Your task to perform on an android device: see sites visited before in the chrome app Image 0: 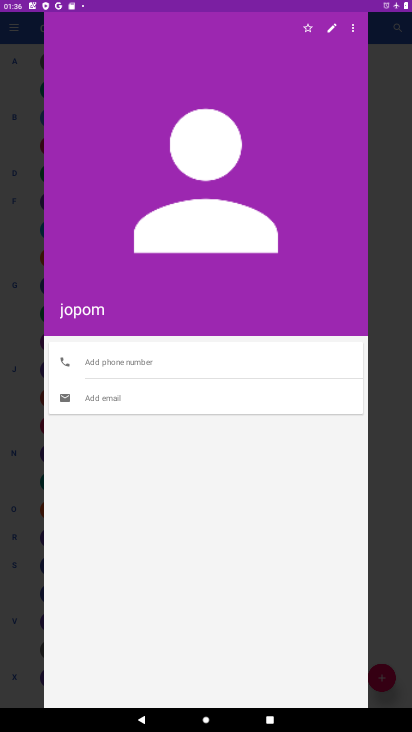
Step 0: press home button
Your task to perform on an android device: see sites visited before in the chrome app Image 1: 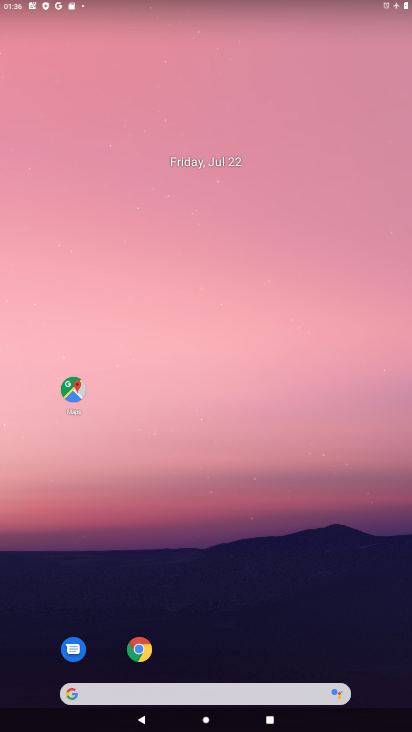
Step 1: drag from (294, 623) to (241, 65)
Your task to perform on an android device: see sites visited before in the chrome app Image 2: 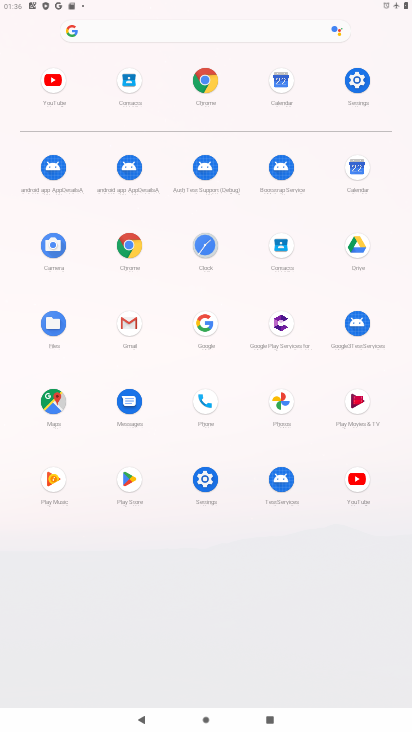
Step 2: click (126, 245)
Your task to perform on an android device: see sites visited before in the chrome app Image 3: 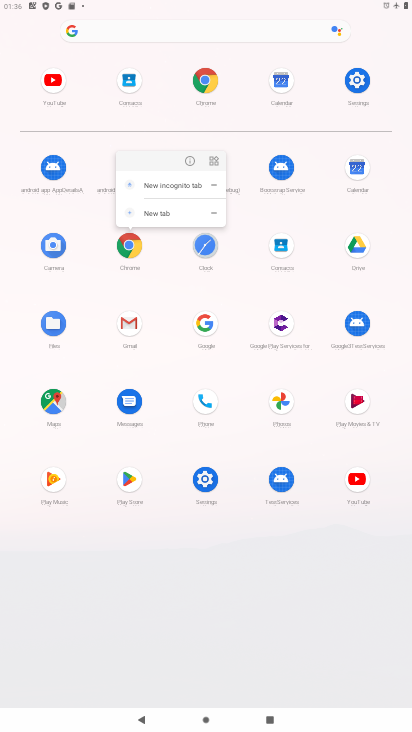
Step 3: click (123, 251)
Your task to perform on an android device: see sites visited before in the chrome app Image 4: 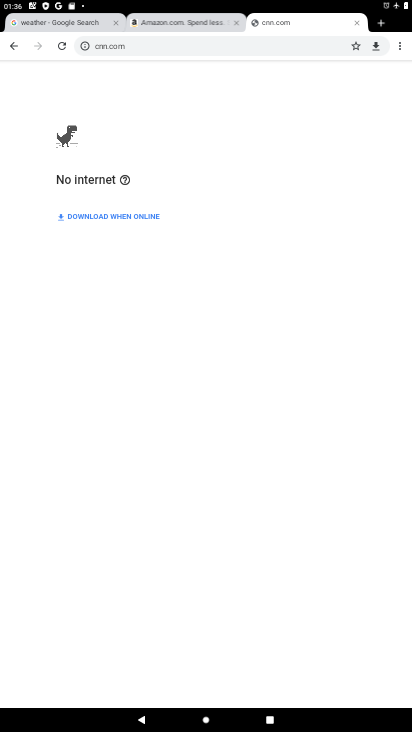
Step 4: drag from (396, 49) to (314, 300)
Your task to perform on an android device: see sites visited before in the chrome app Image 5: 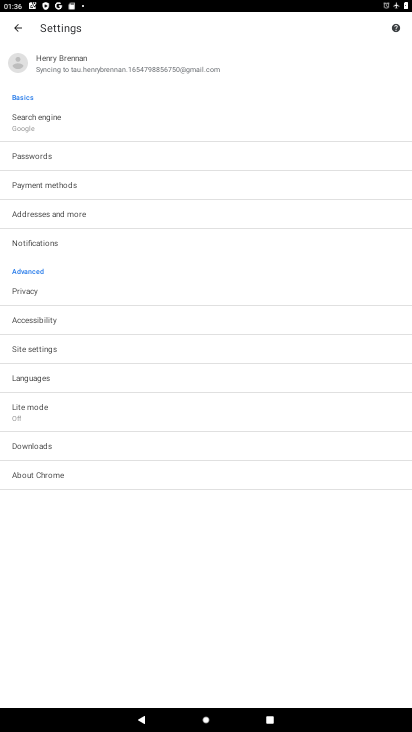
Step 5: click (65, 344)
Your task to perform on an android device: see sites visited before in the chrome app Image 6: 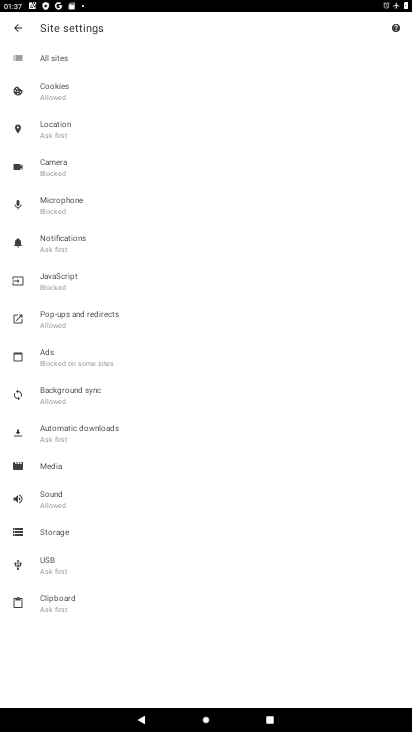
Step 6: click (25, 30)
Your task to perform on an android device: see sites visited before in the chrome app Image 7: 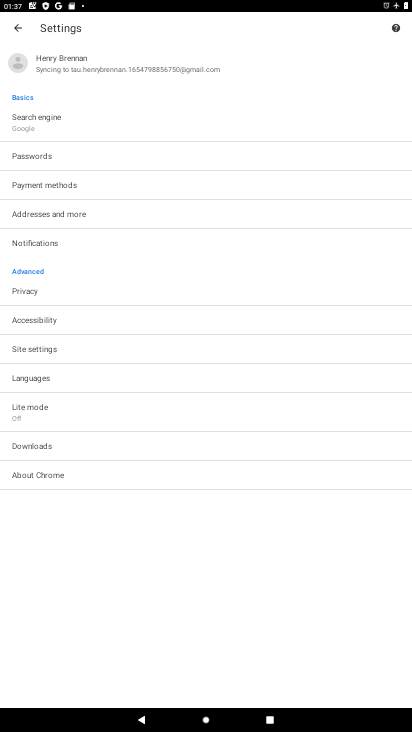
Step 7: click (21, 29)
Your task to perform on an android device: see sites visited before in the chrome app Image 8: 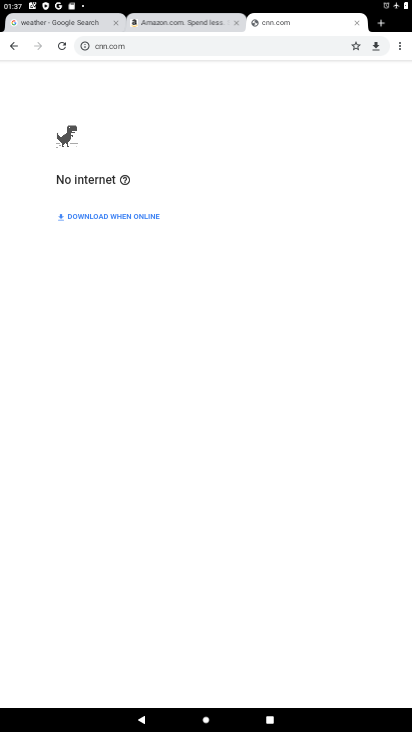
Step 8: task complete